Your task to perform on an android device: Open calendar and show me the first week of next month Image 0: 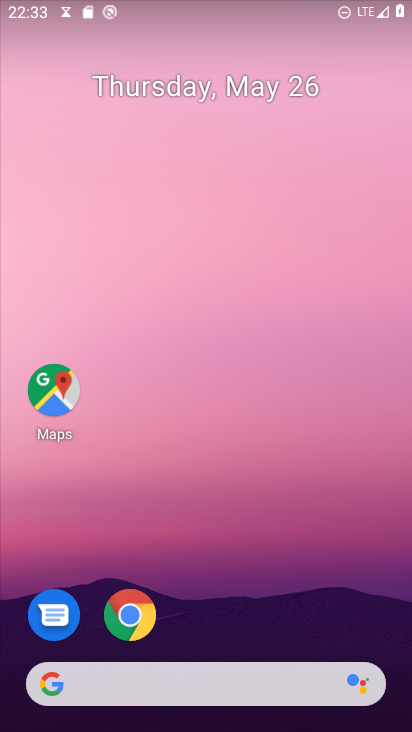
Step 0: drag from (278, 568) to (304, 296)
Your task to perform on an android device: Open calendar and show me the first week of next month Image 1: 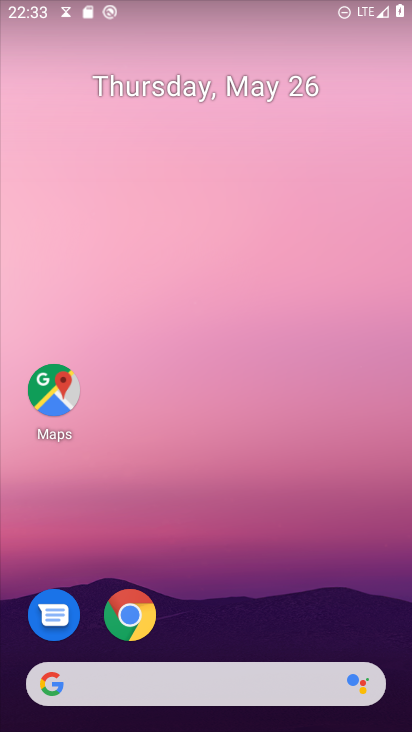
Step 1: drag from (231, 635) to (296, 214)
Your task to perform on an android device: Open calendar and show me the first week of next month Image 2: 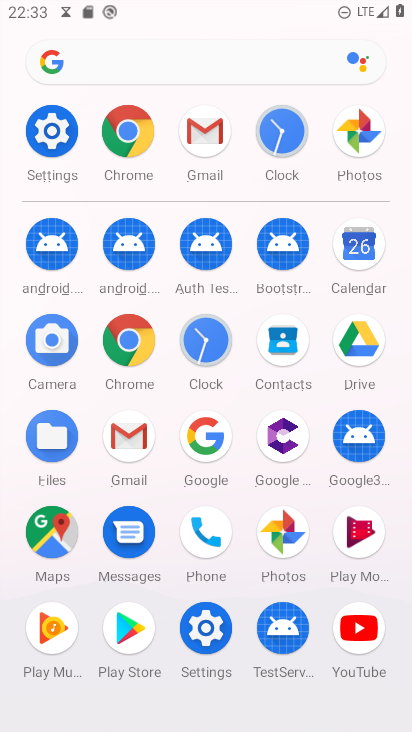
Step 2: click (368, 240)
Your task to perform on an android device: Open calendar and show me the first week of next month Image 3: 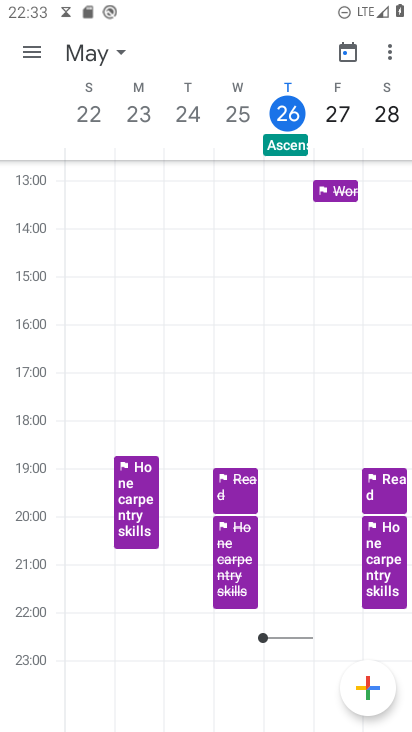
Step 3: click (25, 48)
Your task to perform on an android device: Open calendar and show me the first week of next month Image 4: 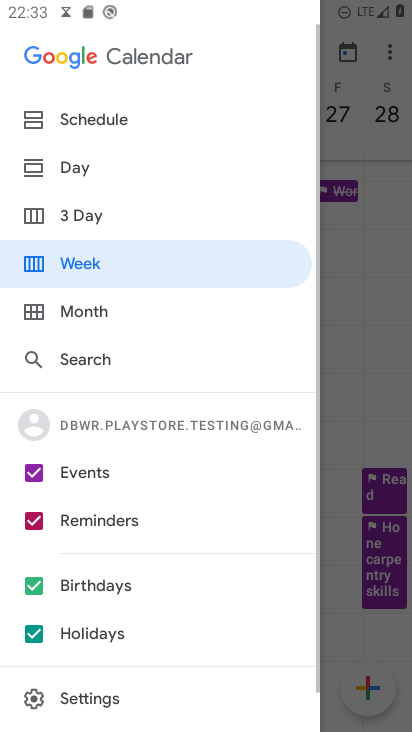
Step 4: click (97, 306)
Your task to perform on an android device: Open calendar and show me the first week of next month Image 5: 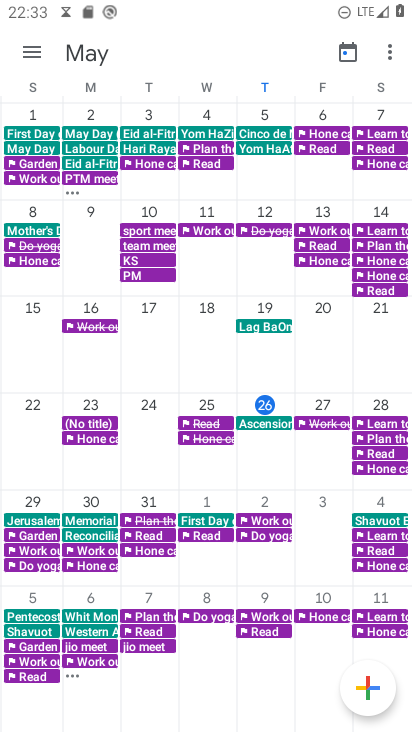
Step 5: task complete